Your task to perform on an android device: turn off notifications in google photos Image 0: 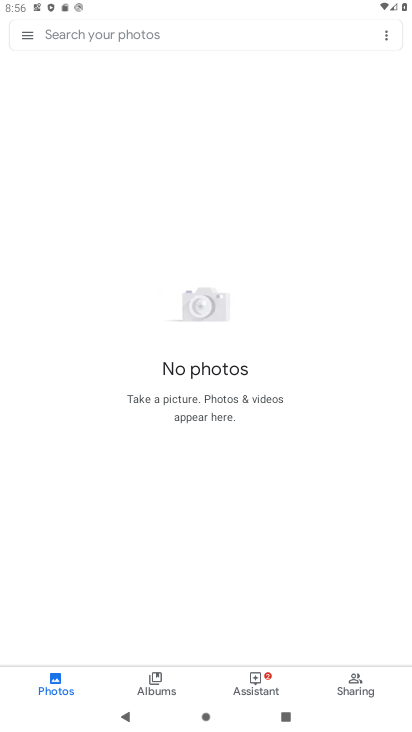
Step 0: press home button
Your task to perform on an android device: turn off notifications in google photos Image 1: 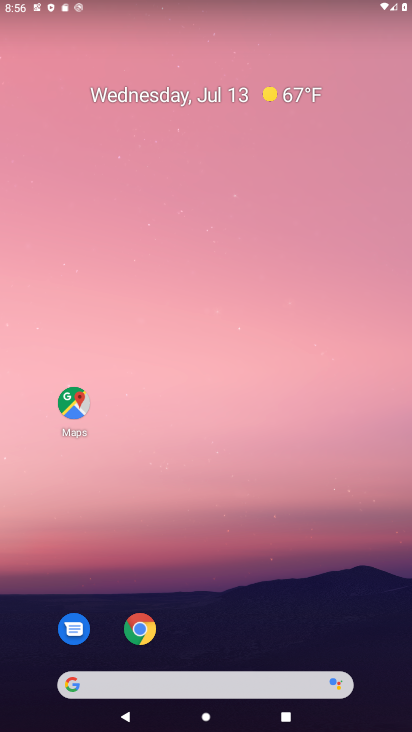
Step 1: drag from (206, 631) to (221, 147)
Your task to perform on an android device: turn off notifications in google photos Image 2: 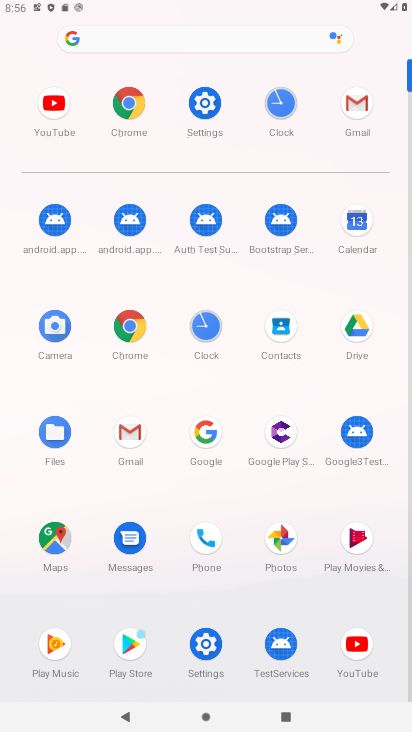
Step 2: click (282, 554)
Your task to perform on an android device: turn off notifications in google photos Image 3: 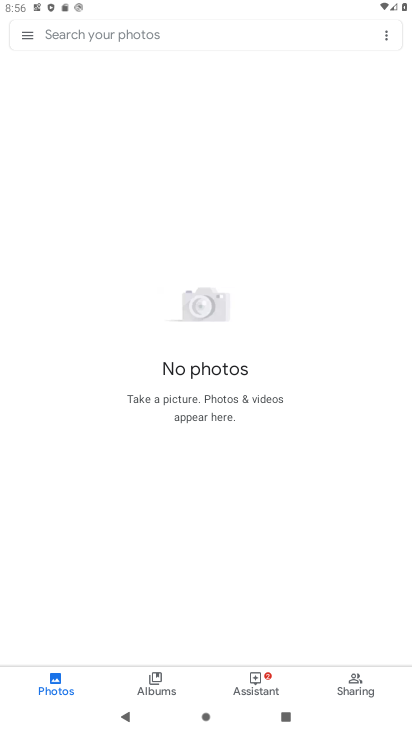
Step 3: click (25, 36)
Your task to perform on an android device: turn off notifications in google photos Image 4: 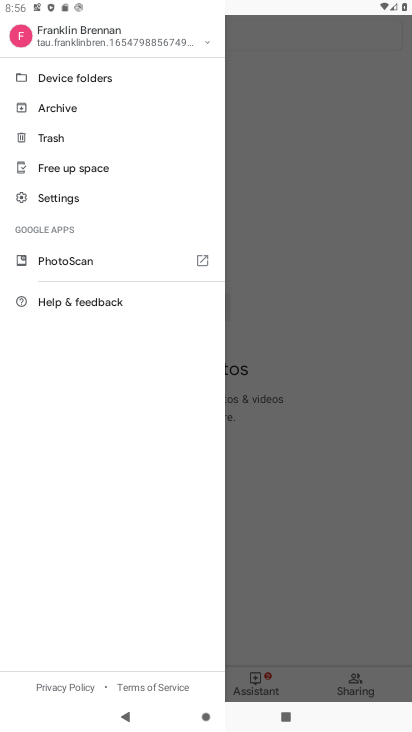
Step 4: click (69, 194)
Your task to perform on an android device: turn off notifications in google photos Image 5: 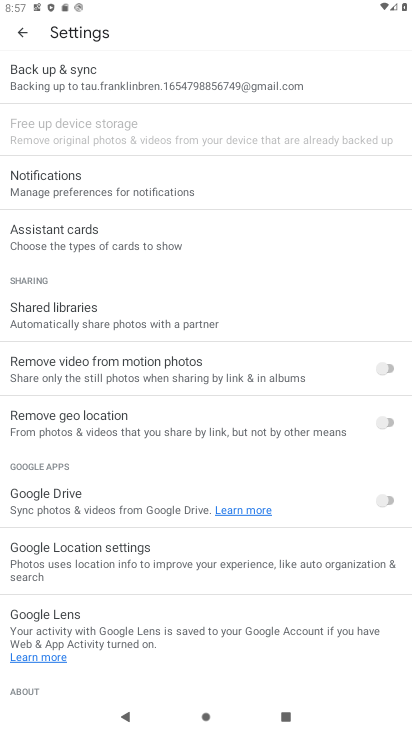
Step 5: click (132, 190)
Your task to perform on an android device: turn off notifications in google photos Image 6: 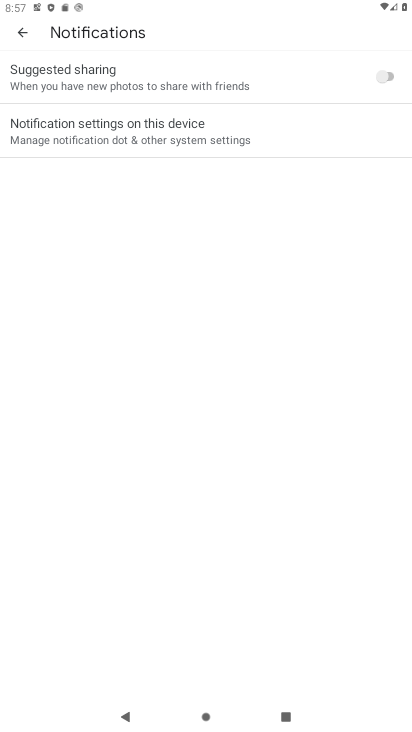
Step 6: click (139, 130)
Your task to perform on an android device: turn off notifications in google photos Image 7: 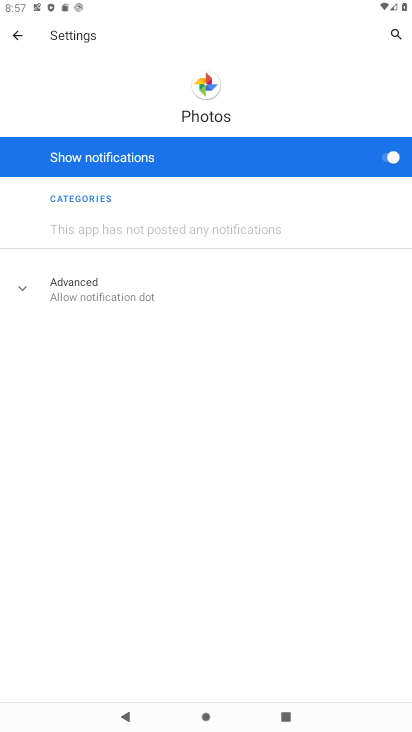
Step 7: click (379, 156)
Your task to perform on an android device: turn off notifications in google photos Image 8: 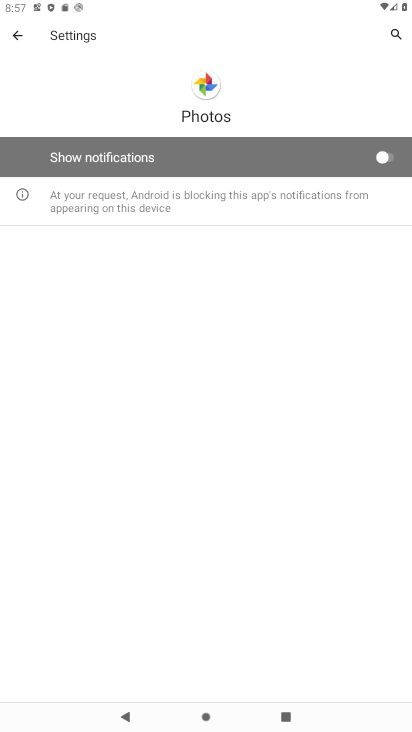
Step 8: task complete